Your task to perform on an android device: What's a good restaurant in Phoenix? Image 0: 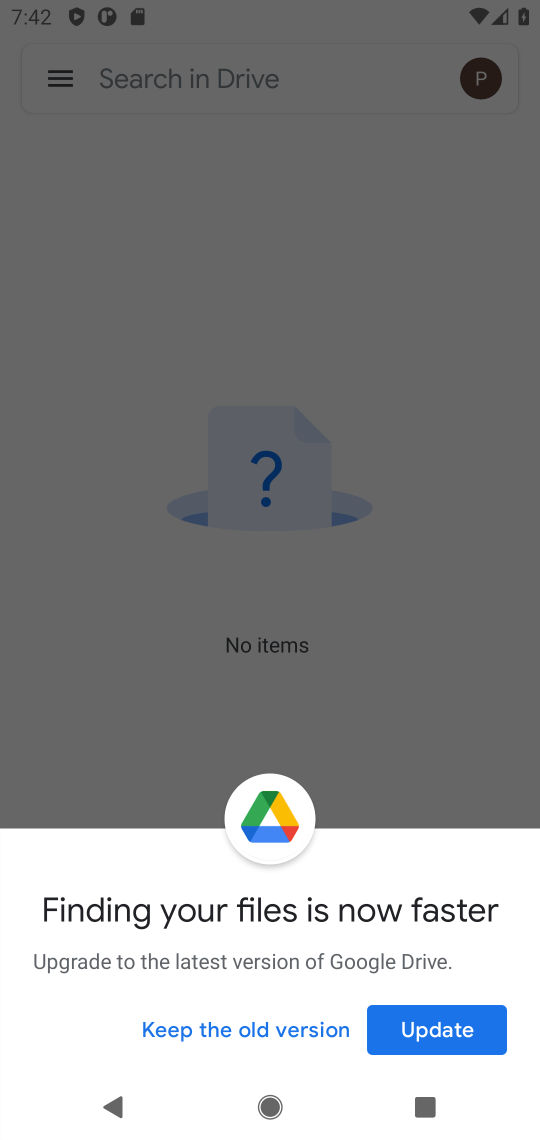
Step 0: press home button
Your task to perform on an android device: What's a good restaurant in Phoenix? Image 1: 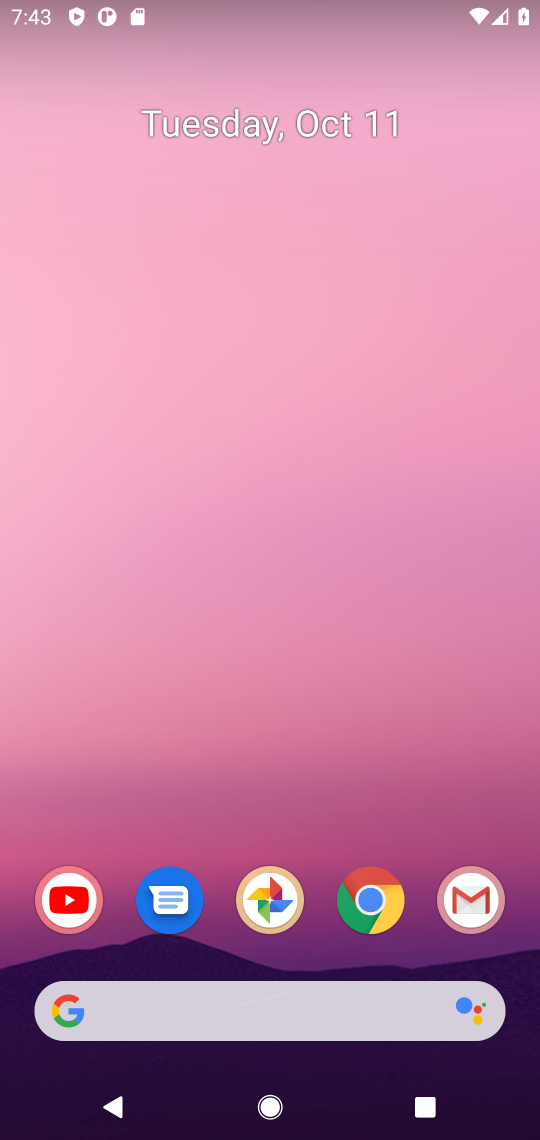
Step 1: click (374, 899)
Your task to perform on an android device: What's a good restaurant in Phoenix? Image 2: 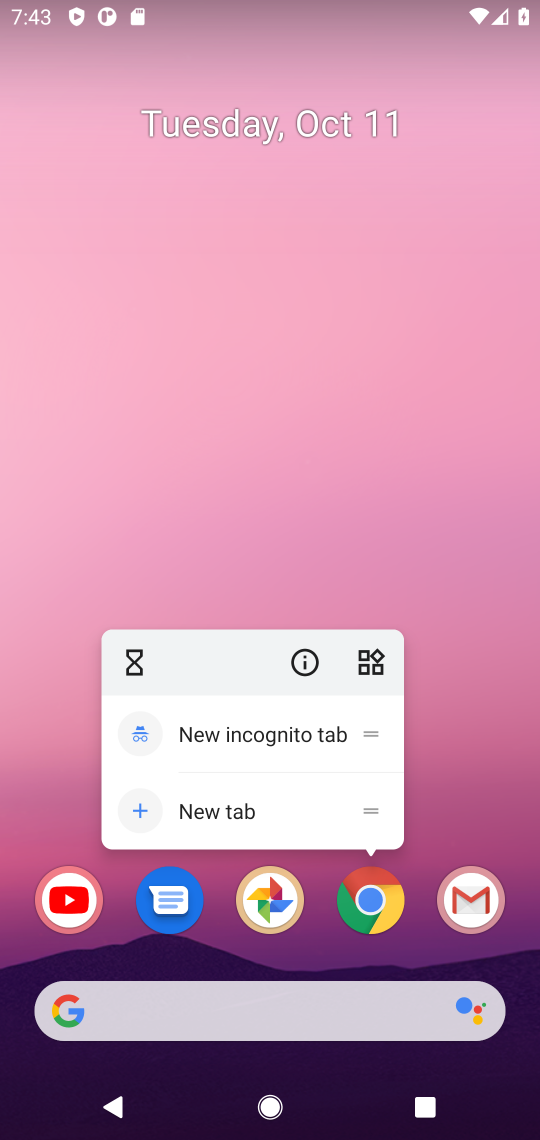
Step 2: click (371, 889)
Your task to perform on an android device: What's a good restaurant in Phoenix? Image 3: 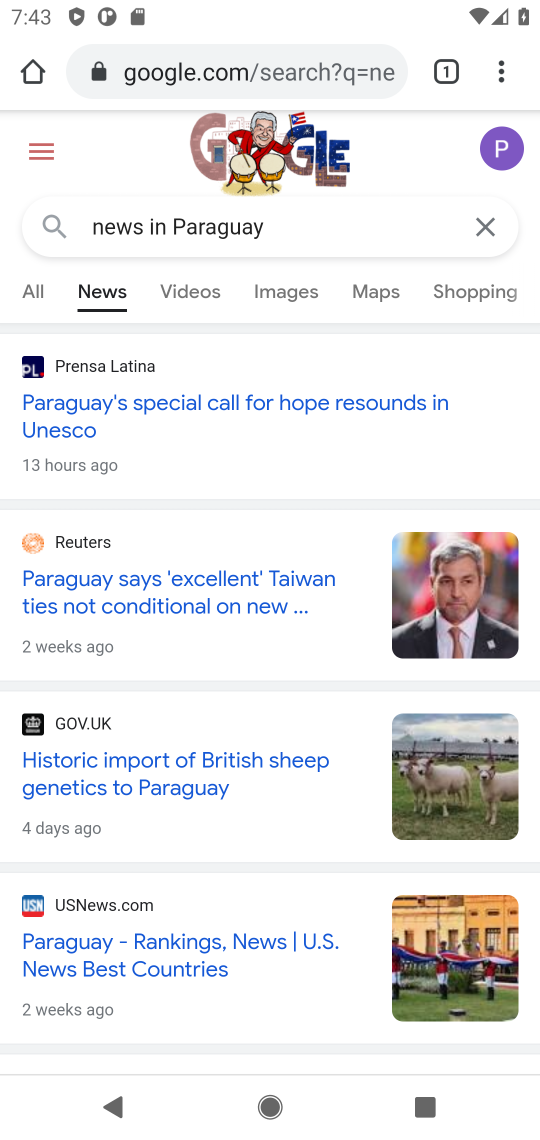
Step 3: drag from (434, 498) to (400, 313)
Your task to perform on an android device: What's a good restaurant in Phoenix? Image 4: 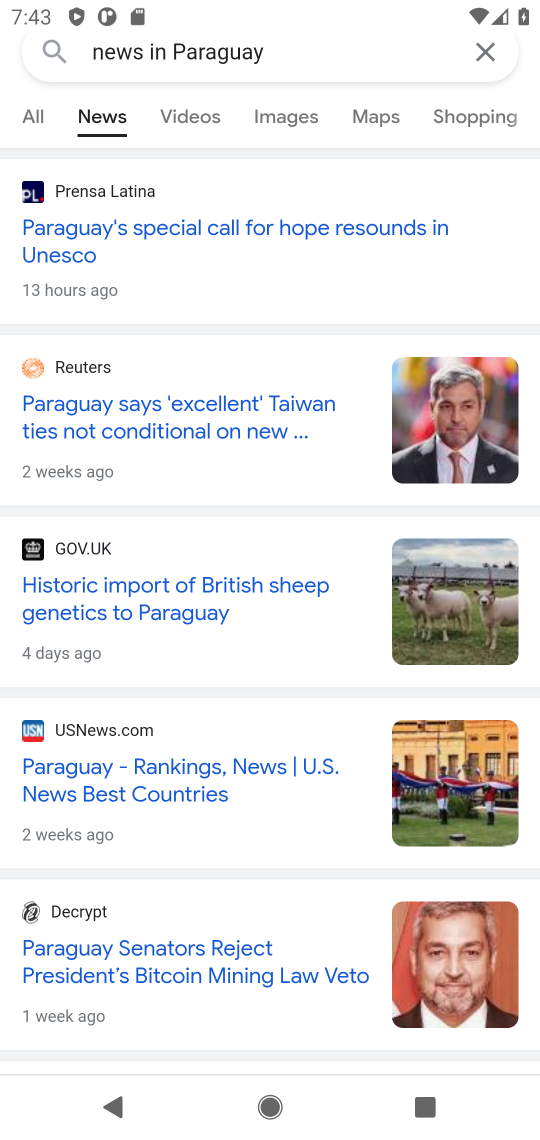
Step 4: click (300, 42)
Your task to perform on an android device: What's a good restaurant in Phoenix? Image 5: 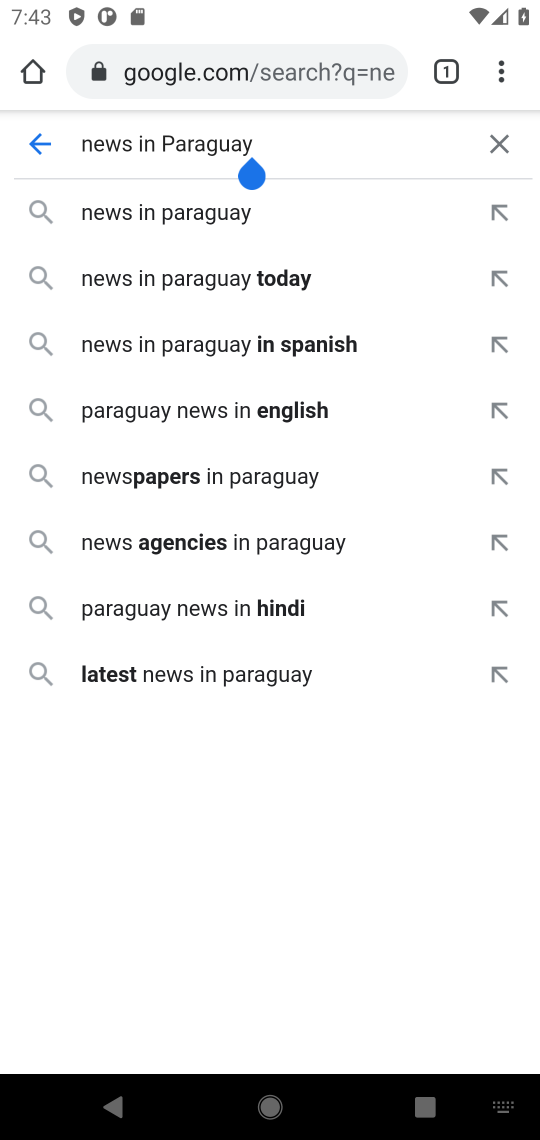
Step 5: drag from (299, 56) to (330, 194)
Your task to perform on an android device: What's a good restaurant in Phoenix? Image 6: 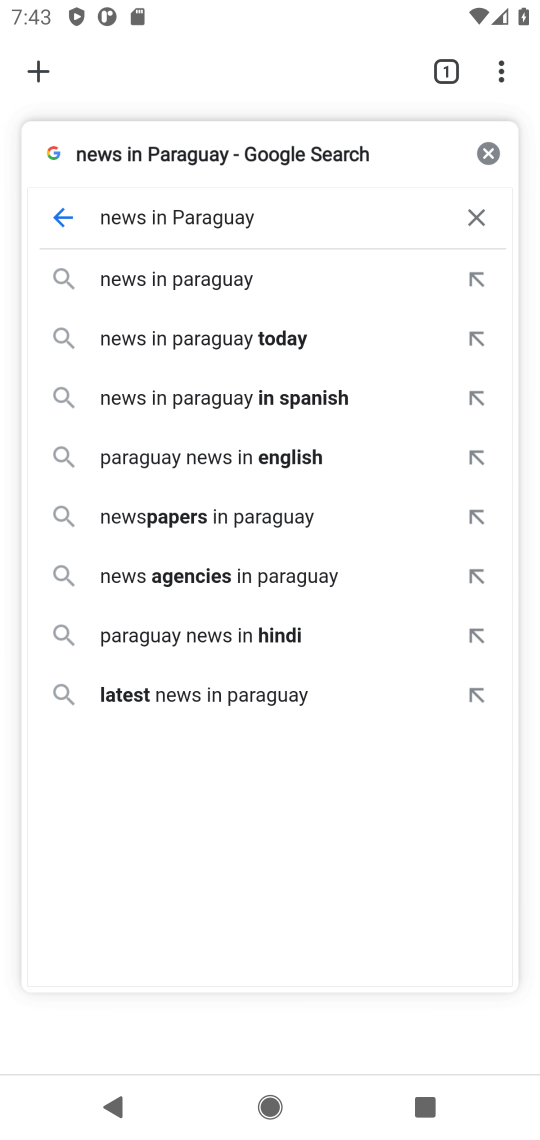
Step 6: click (300, 166)
Your task to perform on an android device: What's a good restaurant in Phoenix? Image 7: 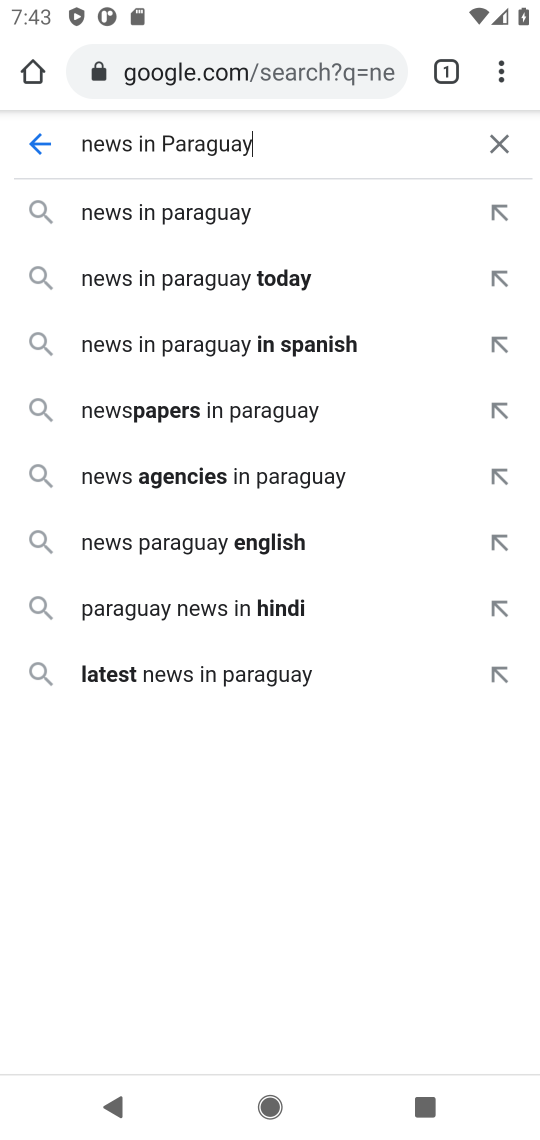
Step 7: click (321, 61)
Your task to perform on an android device: What's a good restaurant in Phoenix? Image 8: 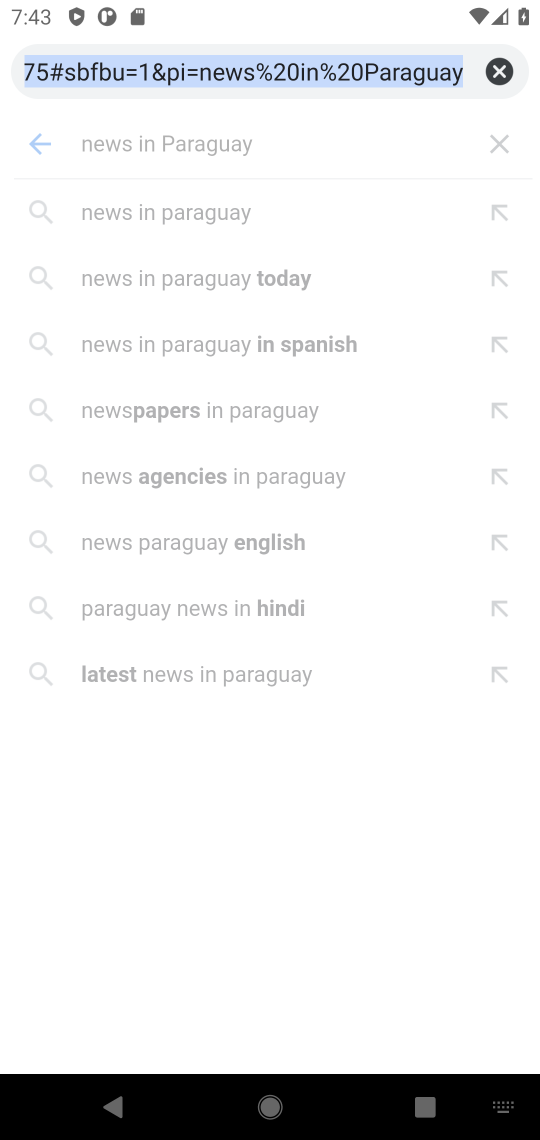
Step 8: type "good restaurant in Phoenix"
Your task to perform on an android device: What's a good restaurant in Phoenix? Image 9: 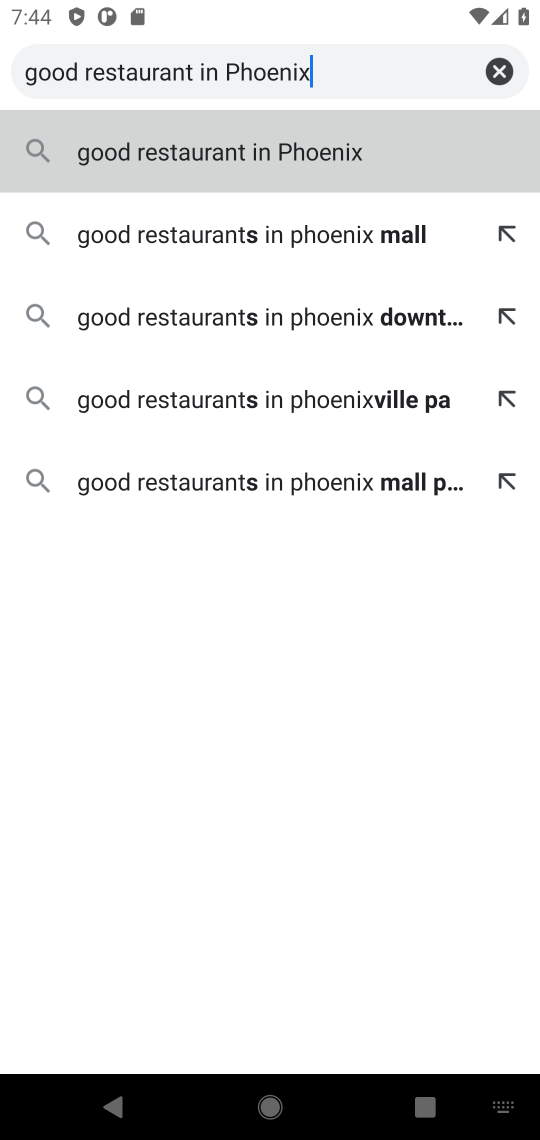
Step 9: click (367, 157)
Your task to perform on an android device: What's a good restaurant in Phoenix? Image 10: 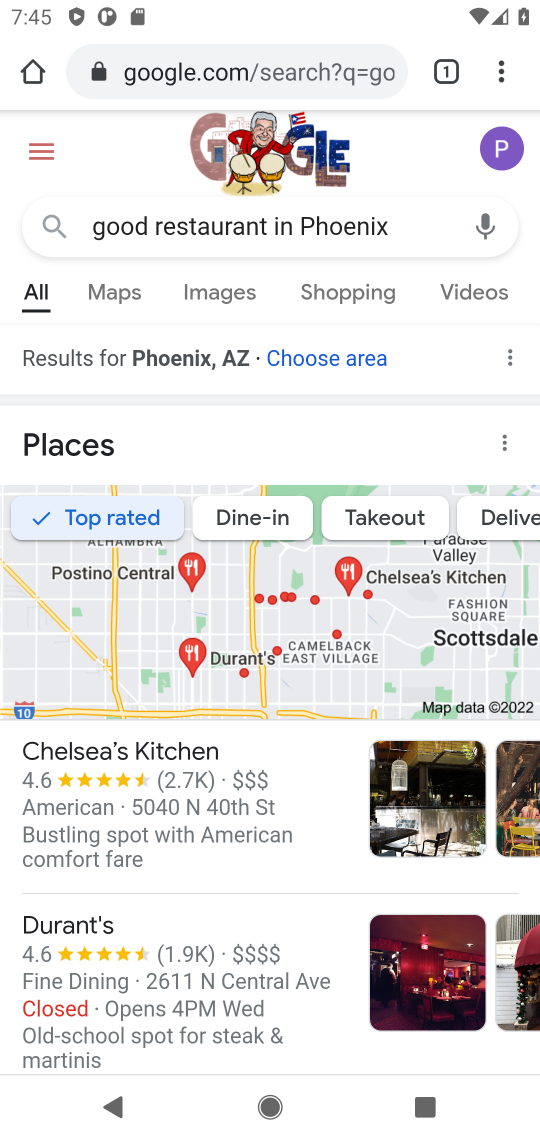
Step 10: task complete